Your task to perform on an android device: Look up the best rated hair dryer on Walmart. Image 0: 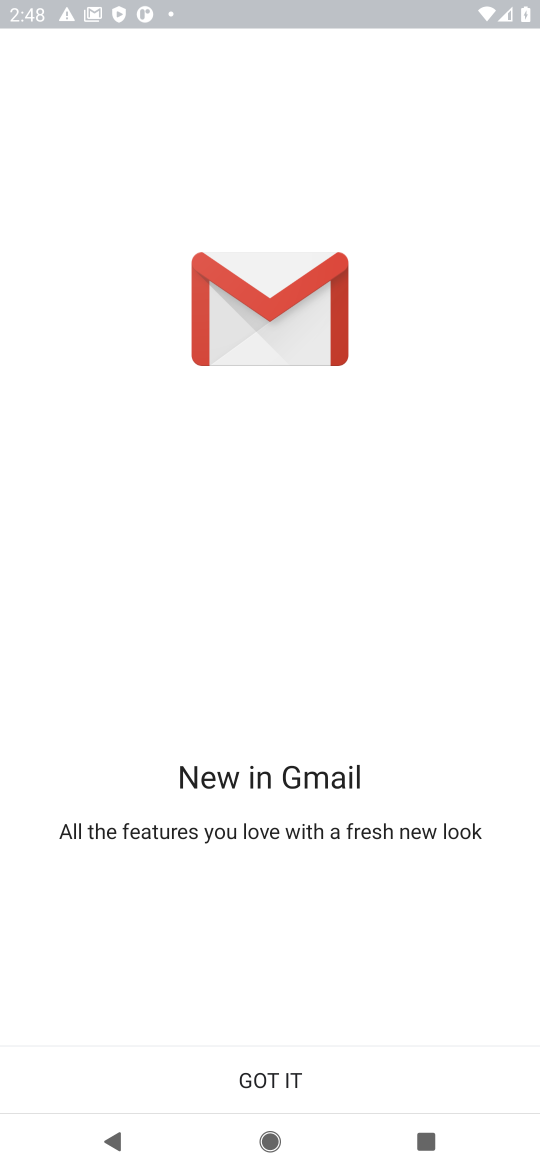
Step 0: click (281, 1086)
Your task to perform on an android device: Look up the best rated hair dryer on Walmart. Image 1: 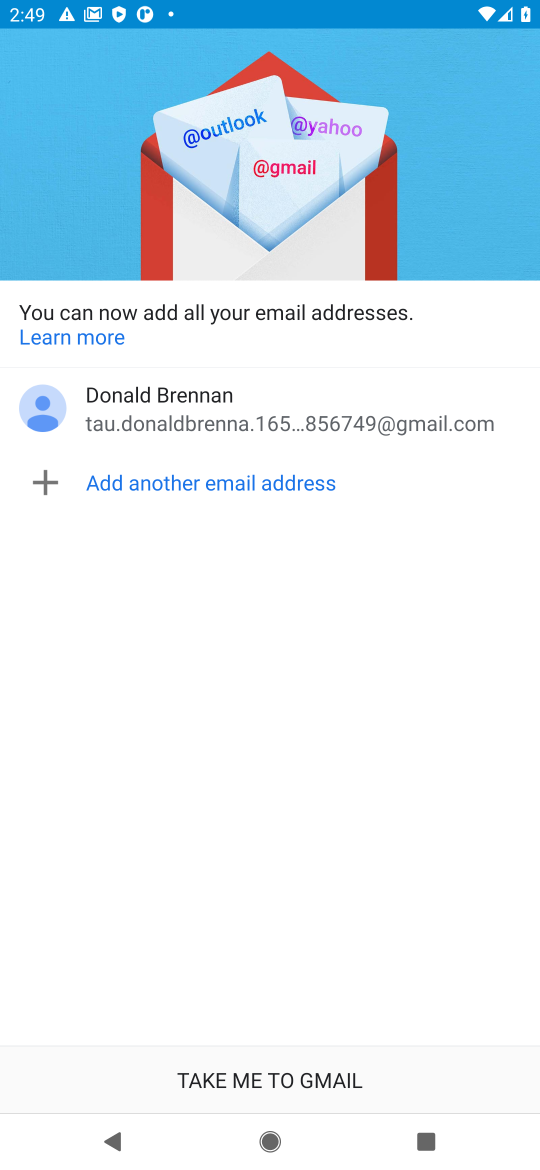
Step 1: click (248, 1080)
Your task to perform on an android device: Look up the best rated hair dryer on Walmart. Image 2: 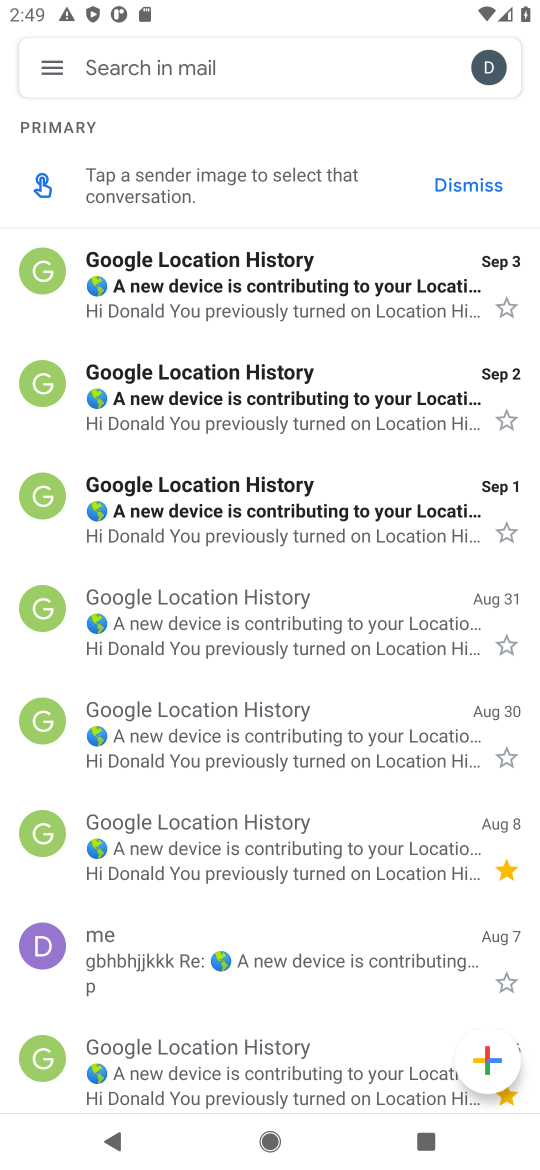
Step 2: press home button
Your task to perform on an android device: Look up the best rated hair dryer on Walmart. Image 3: 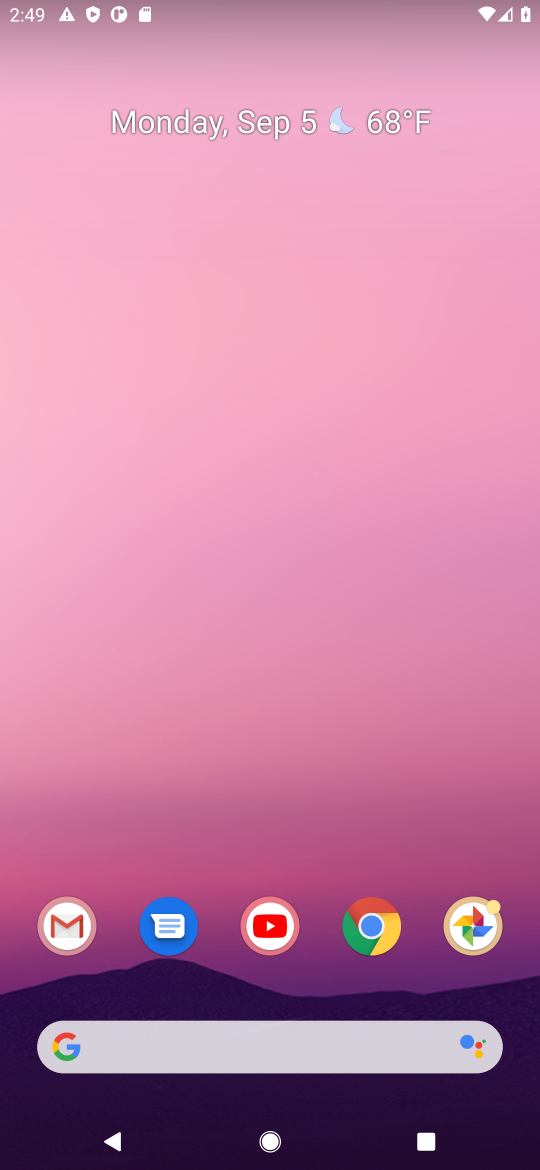
Step 3: click (360, 930)
Your task to perform on an android device: Look up the best rated hair dryer on Walmart. Image 4: 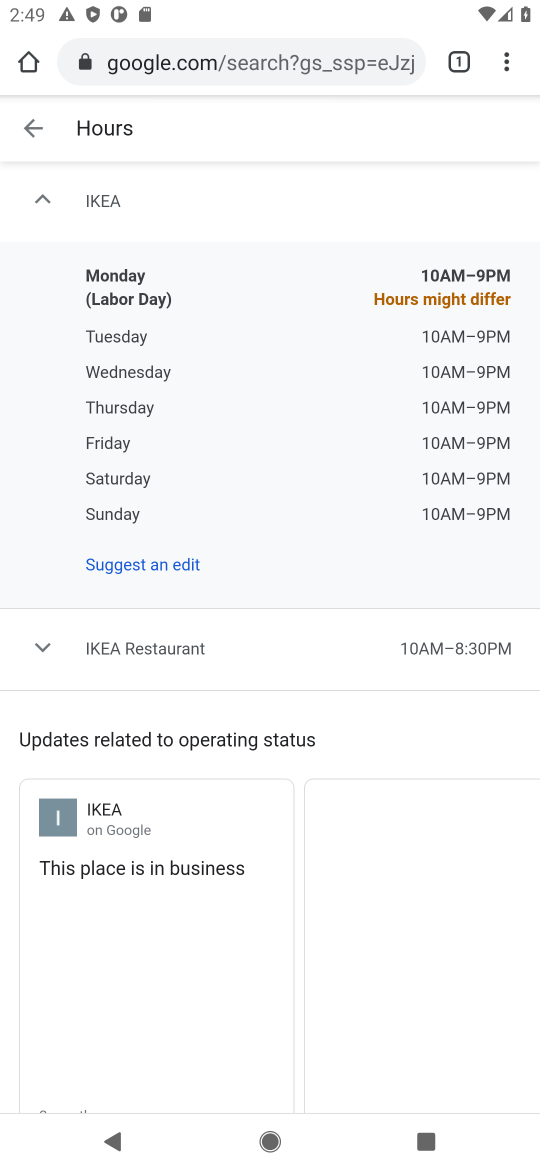
Step 4: click (258, 56)
Your task to perform on an android device: Look up the best rated hair dryer on Walmart. Image 5: 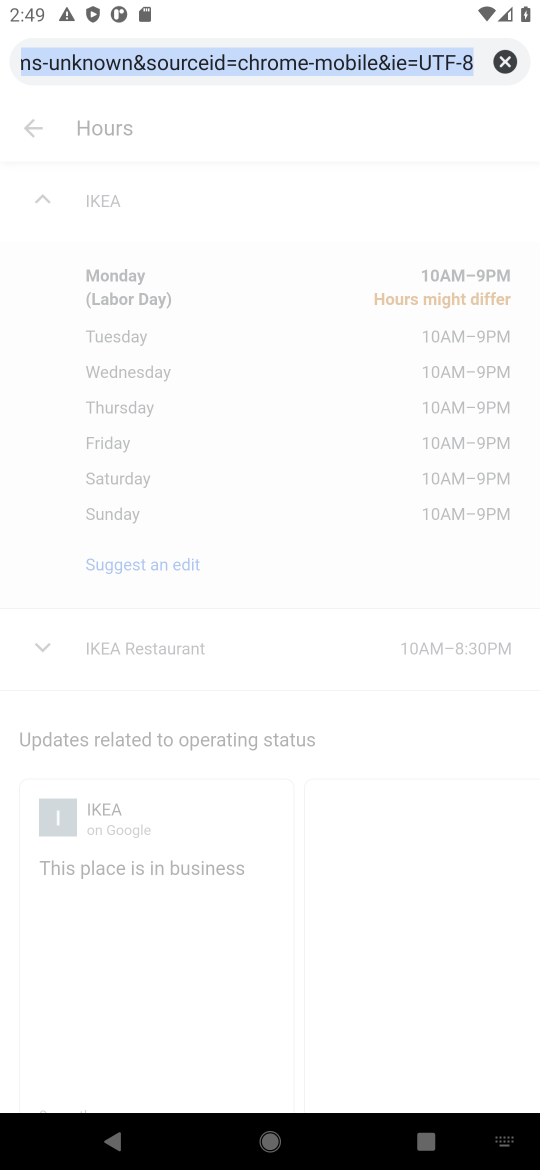
Step 5: type "walmart"
Your task to perform on an android device: Look up the best rated hair dryer on Walmart. Image 6: 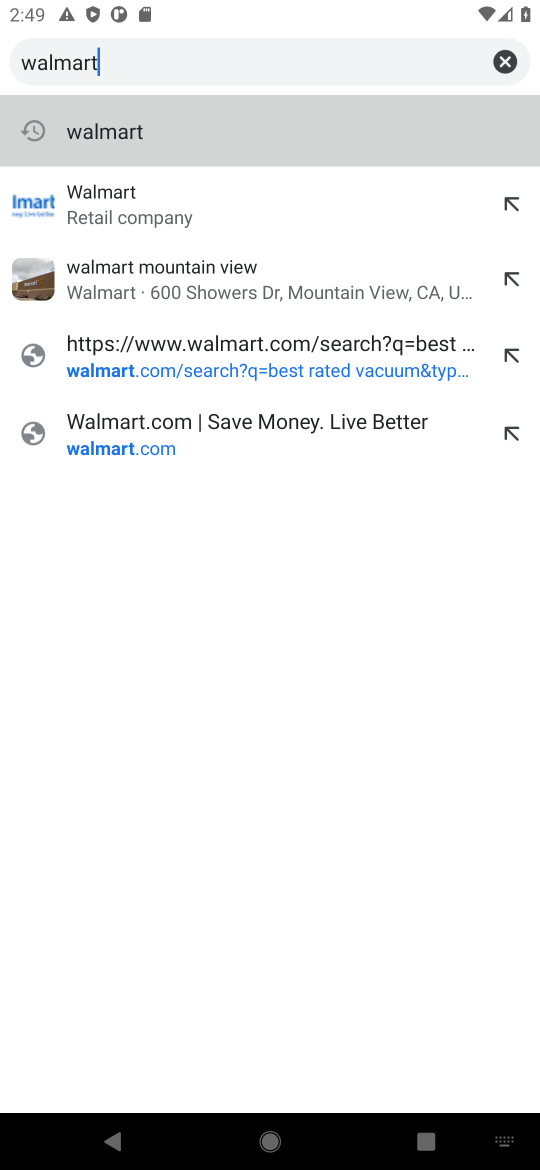
Step 6: click (82, 191)
Your task to perform on an android device: Look up the best rated hair dryer on Walmart. Image 7: 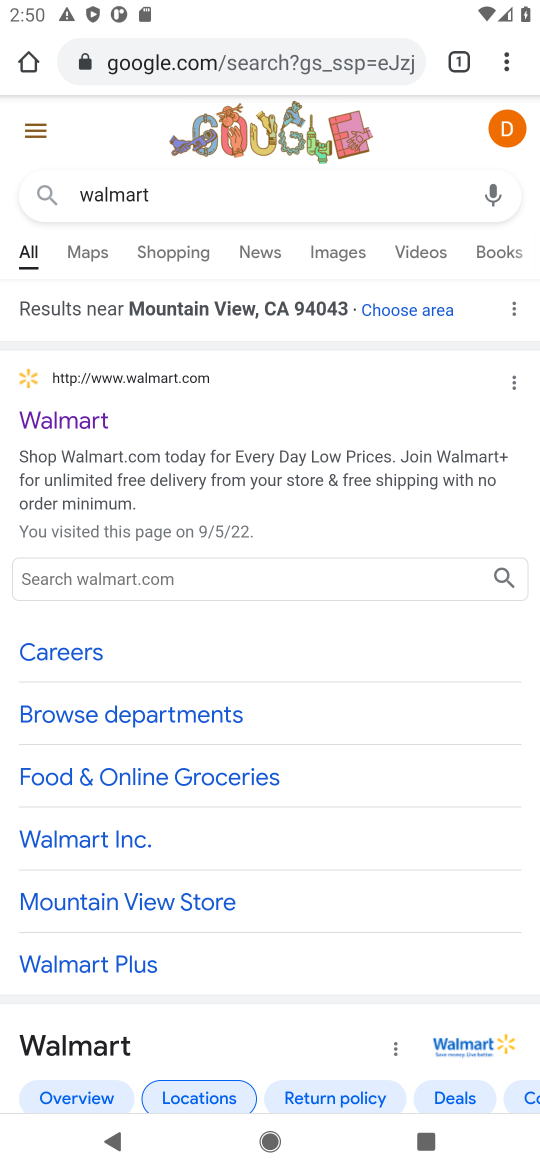
Step 7: click (42, 425)
Your task to perform on an android device: Look up the best rated hair dryer on Walmart. Image 8: 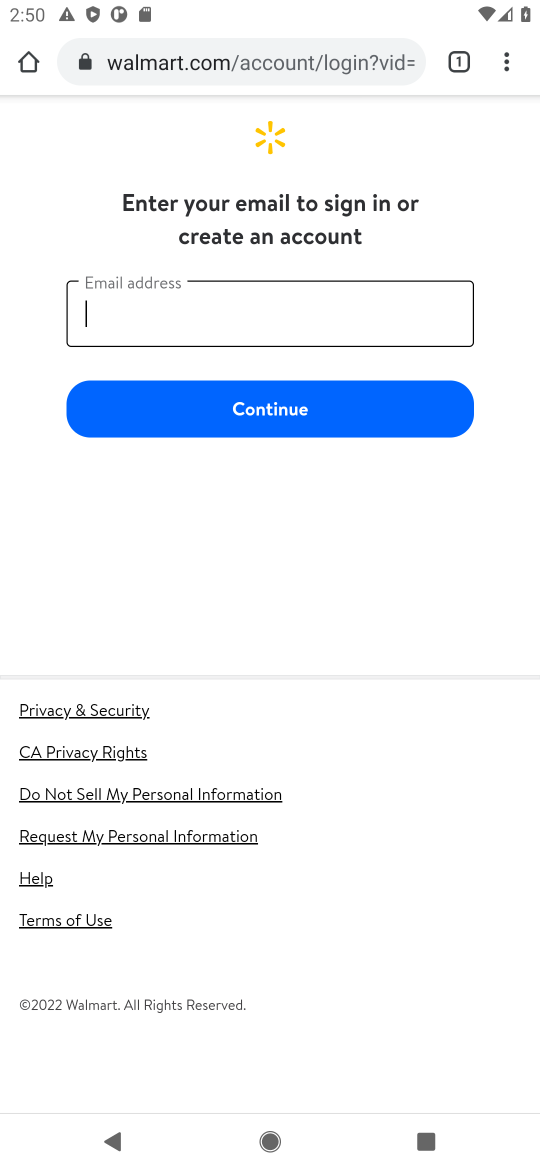
Step 8: task complete